Your task to perform on an android device: turn on the 24-hour format for clock Image 0: 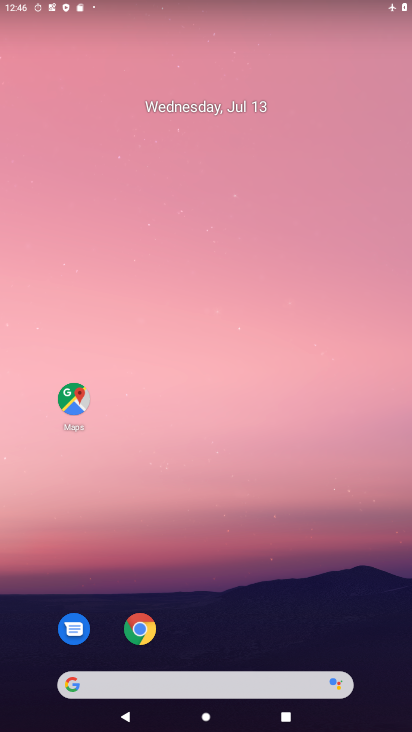
Step 0: drag from (222, 613) to (207, 170)
Your task to perform on an android device: turn on the 24-hour format for clock Image 1: 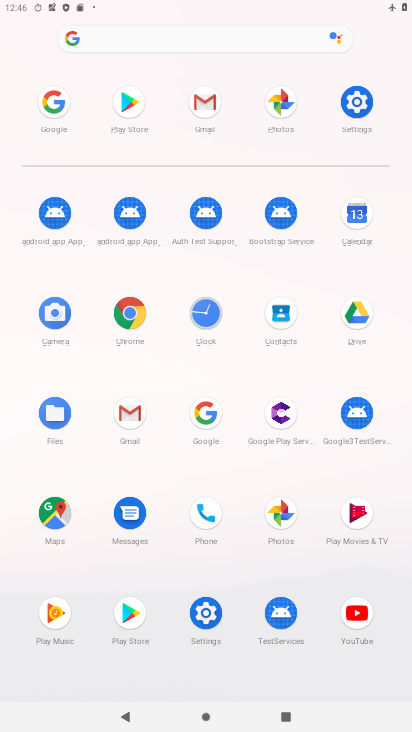
Step 1: click (196, 337)
Your task to perform on an android device: turn on the 24-hour format for clock Image 2: 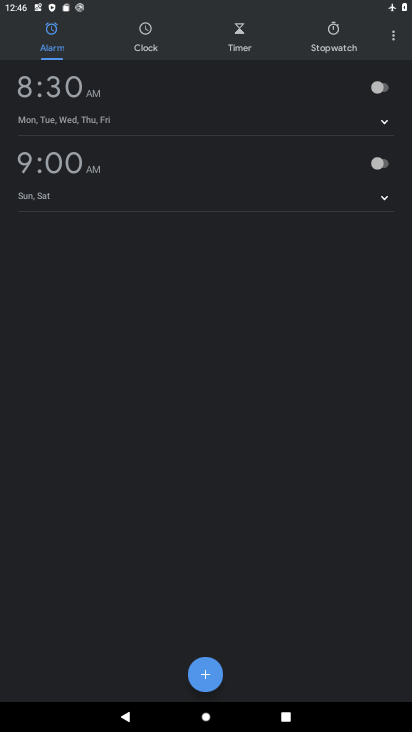
Step 2: click (401, 27)
Your task to perform on an android device: turn on the 24-hour format for clock Image 3: 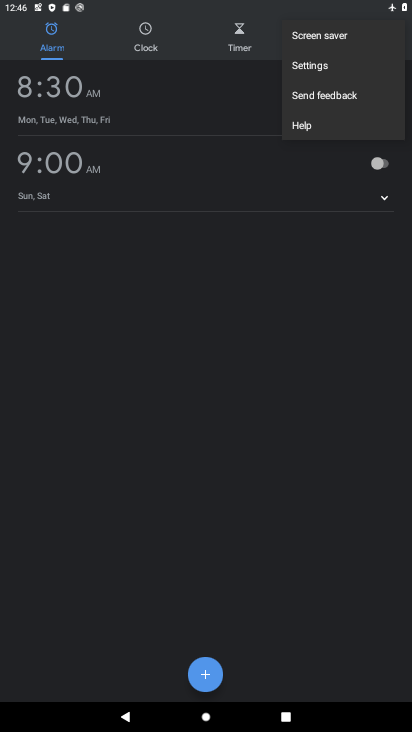
Step 3: click (341, 64)
Your task to perform on an android device: turn on the 24-hour format for clock Image 4: 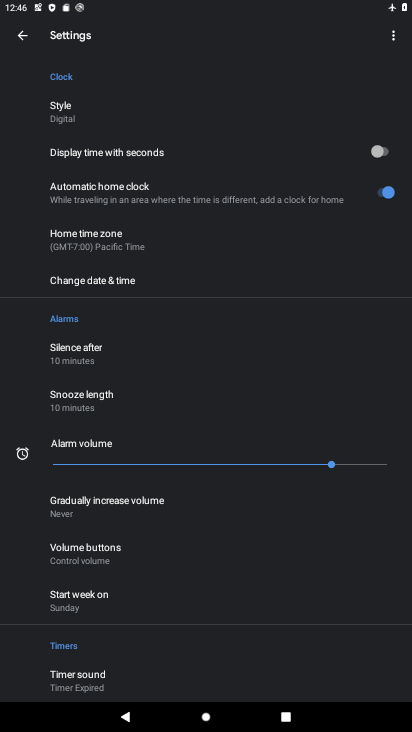
Step 4: click (163, 279)
Your task to perform on an android device: turn on the 24-hour format for clock Image 5: 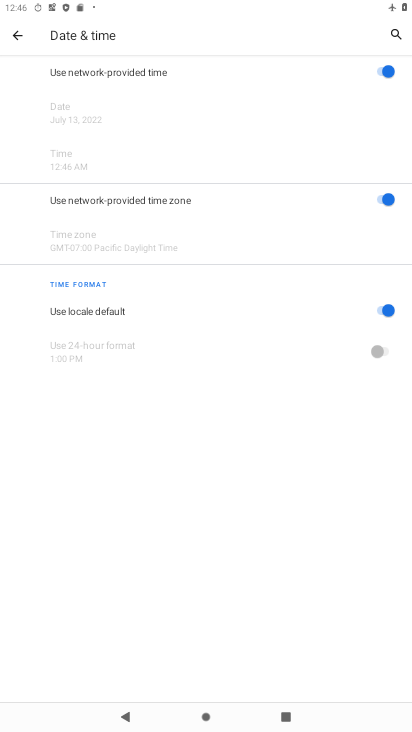
Step 5: click (378, 316)
Your task to perform on an android device: turn on the 24-hour format for clock Image 6: 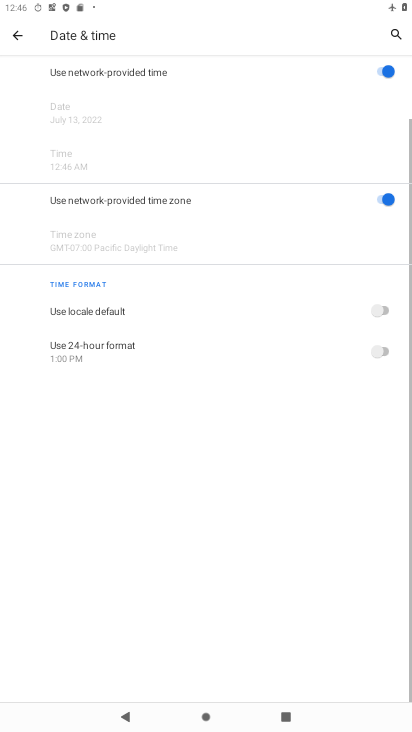
Step 6: click (384, 351)
Your task to perform on an android device: turn on the 24-hour format for clock Image 7: 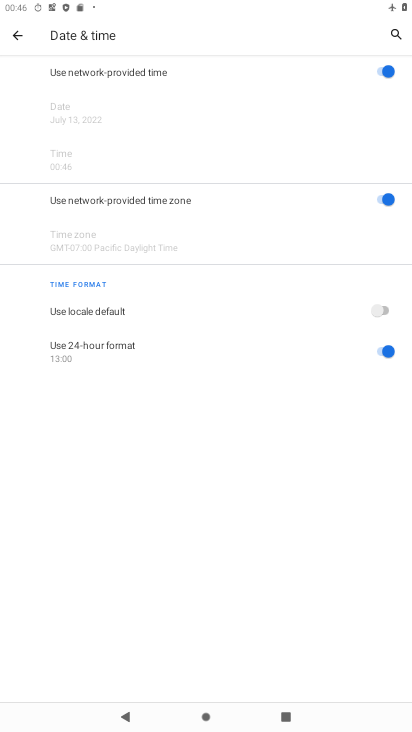
Step 7: task complete